Your task to perform on an android device: Open the calendar and show me this week's events Image 0: 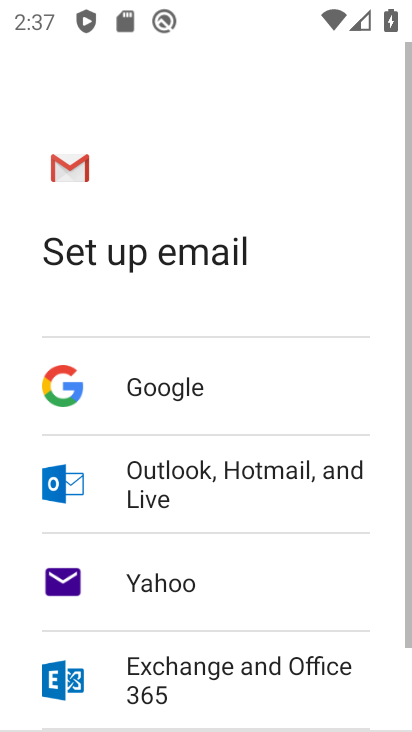
Step 0: press home button
Your task to perform on an android device: Open the calendar and show me this week's events Image 1: 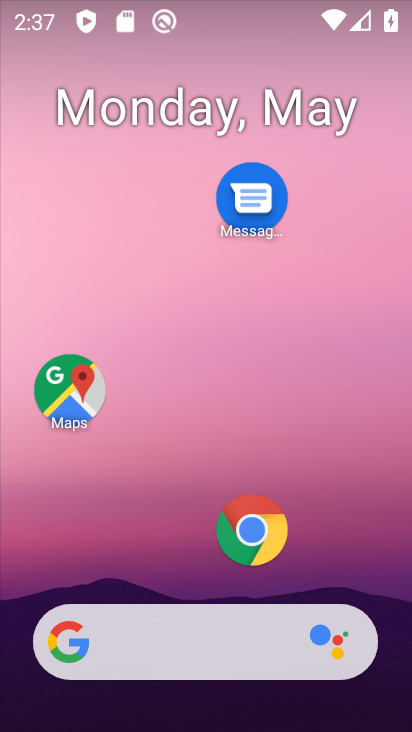
Step 1: drag from (105, 554) to (230, 50)
Your task to perform on an android device: Open the calendar and show me this week's events Image 2: 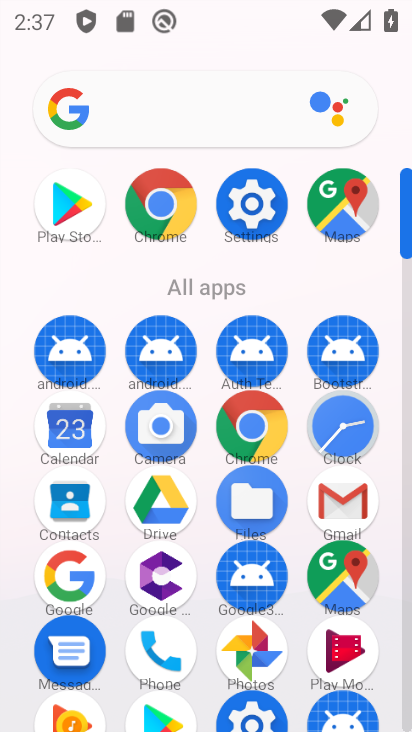
Step 2: click (68, 436)
Your task to perform on an android device: Open the calendar and show me this week's events Image 3: 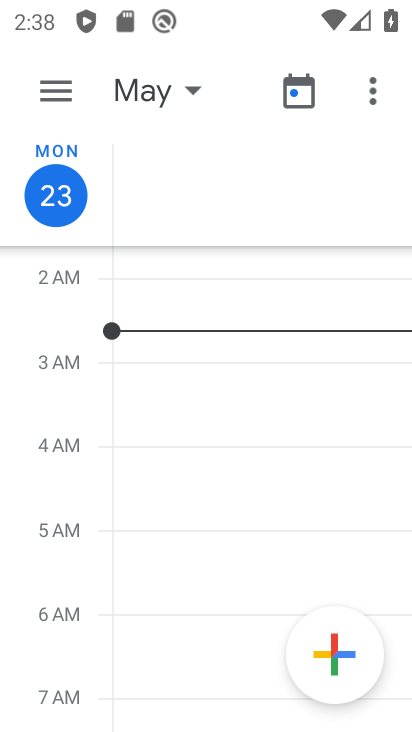
Step 3: click (173, 92)
Your task to perform on an android device: Open the calendar and show me this week's events Image 4: 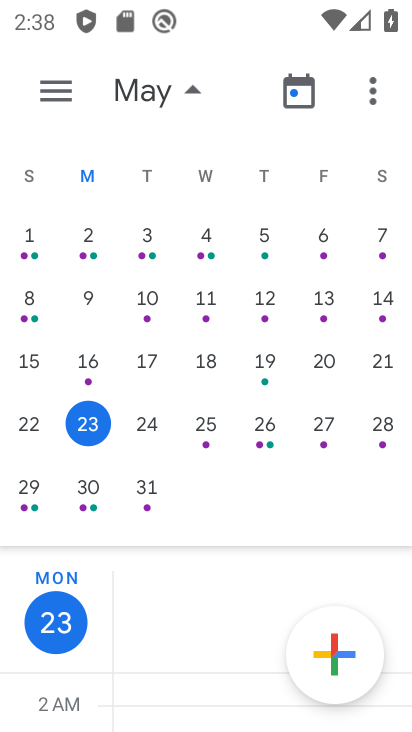
Step 4: click (74, 424)
Your task to perform on an android device: Open the calendar and show me this week's events Image 5: 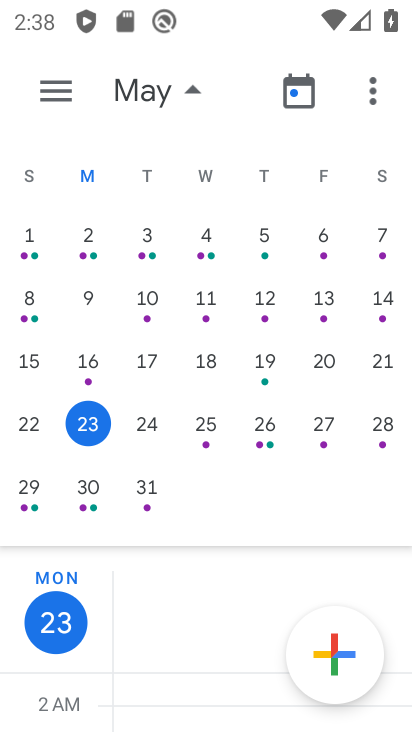
Step 5: task complete